Your task to perform on an android device: Open internet settings Image 0: 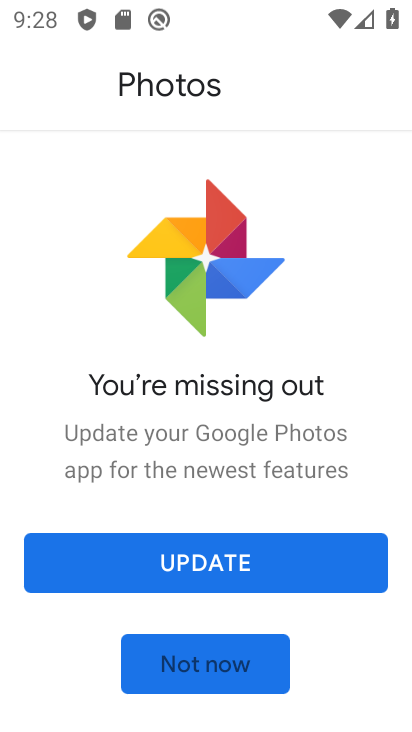
Step 0: press home button
Your task to perform on an android device: Open internet settings Image 1: 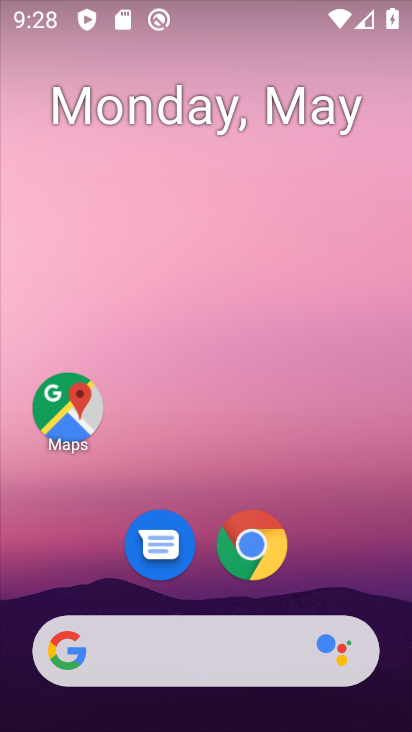
Step 1: drag from (340, 565) to (394, 94)
Your task to perform on an android device: Open internet settings Image 2: 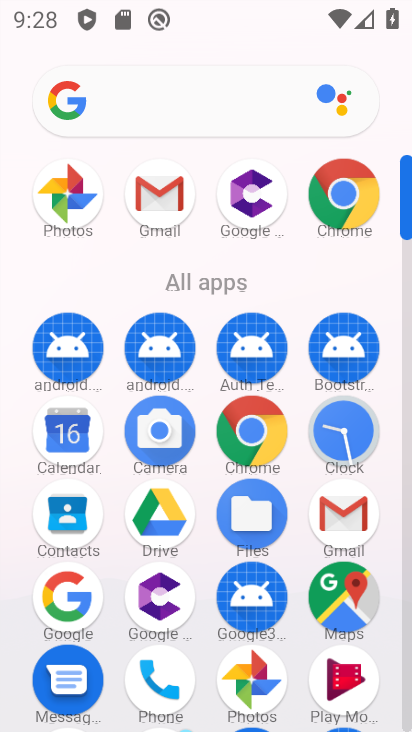
Step 2: drag from (206, 584) to (311, 121)
Your task to perform on an android device: Open internet settings Image 3: 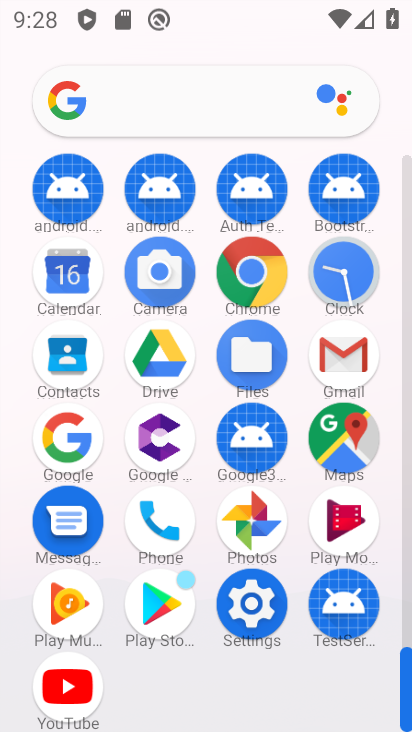
Step 3: click (247, 609)
Your task to perform on an android device: Open internet settings Image 4: 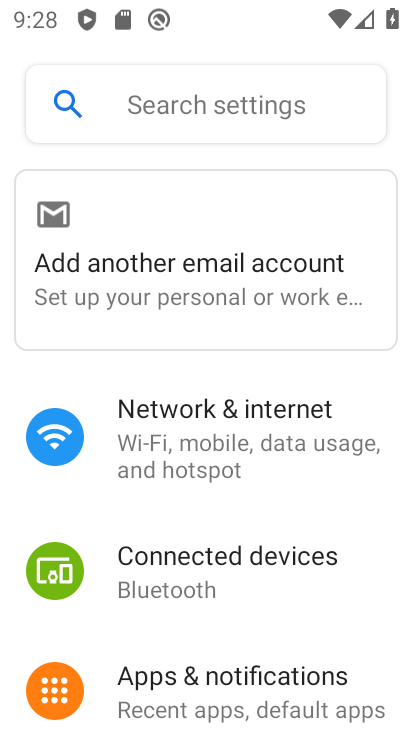
Step 4: click (236, 456)
Your task to perform on an android device: Open internet settings Image 5: 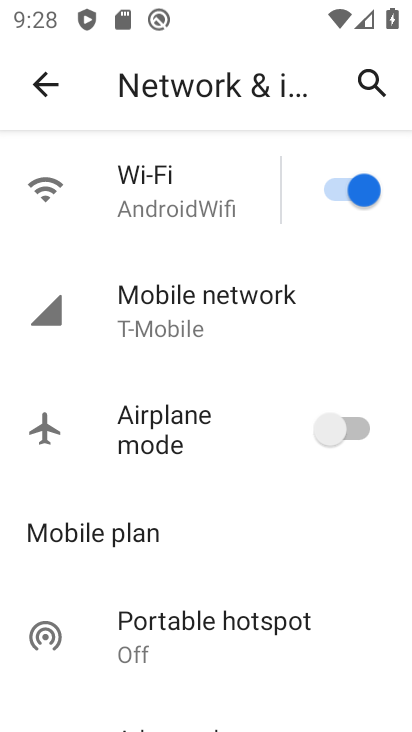
Step 5: task complete